Your task to perform on an android device: Go to privacy settings Image 0: 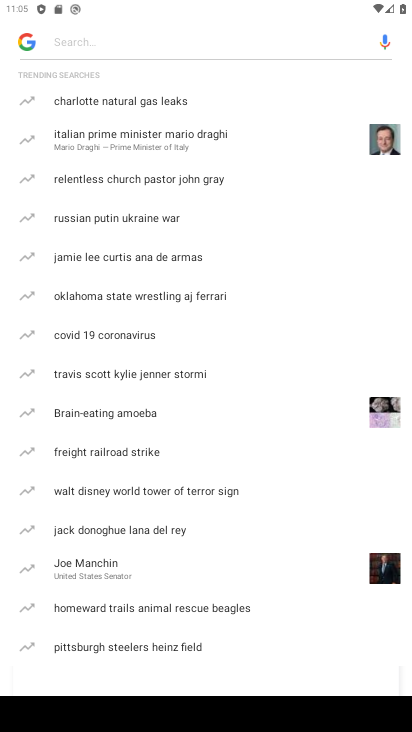
Step 0: press home button
Your task to perform on an android device: Go to privacy settings Image 1: 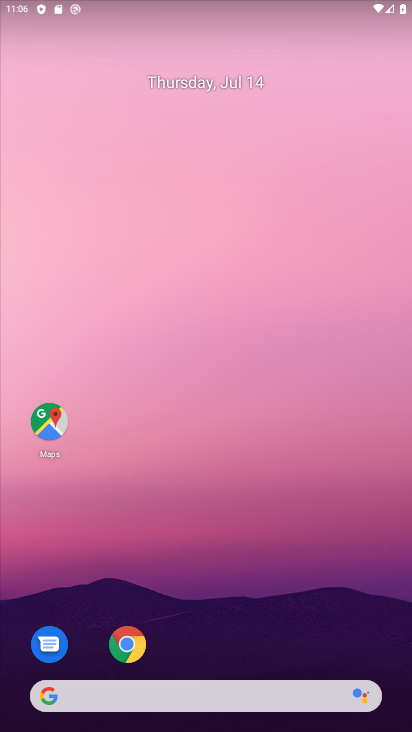
Step 1: drag from (196, 660) to (323, 37)
Your task to perform on an android device: Go to privacy settings Image 2: 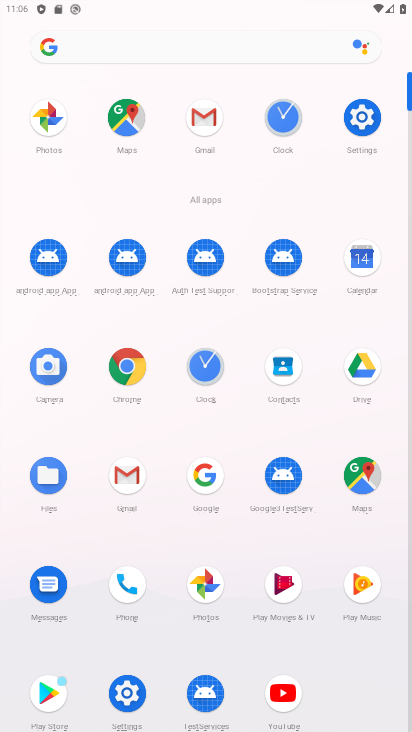
Step 2: click (132, 367)
Your task to perform on an android device: Go to privacy settings Image 3: 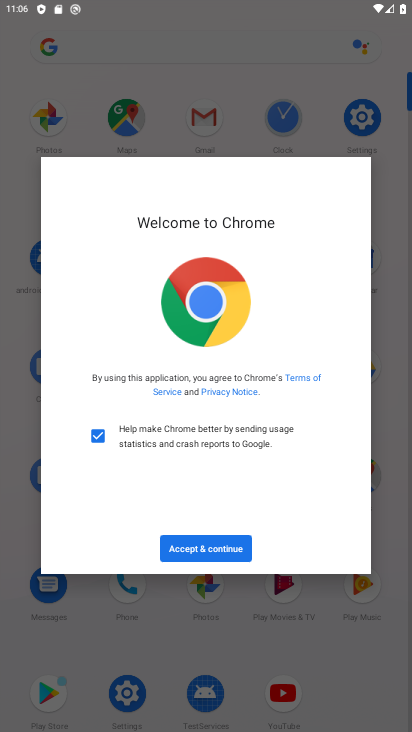
Step 3: click (206, 549)
Your task to perform on an android device: Go to privacy settings Image 4: 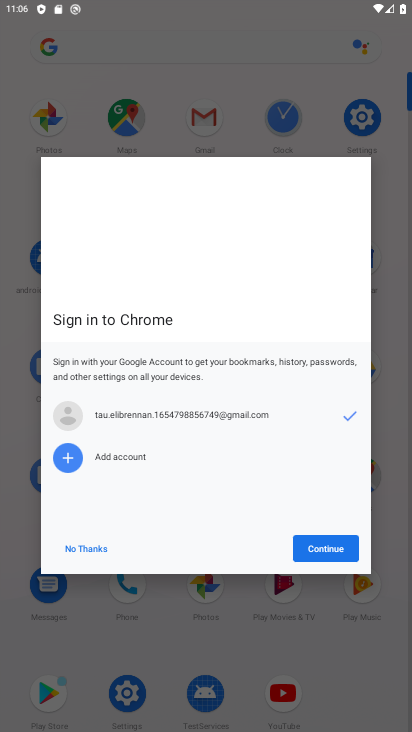
Step 4: click (329, 559)
Your task to perform on an android device: Go to privacy settings Image 5: 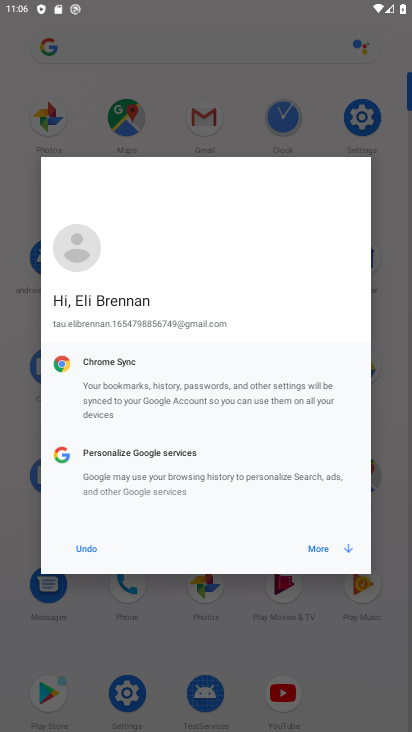
Step 5: click (328, 551)
Your task to perform on an android device: Go to privacy settings Image 6: 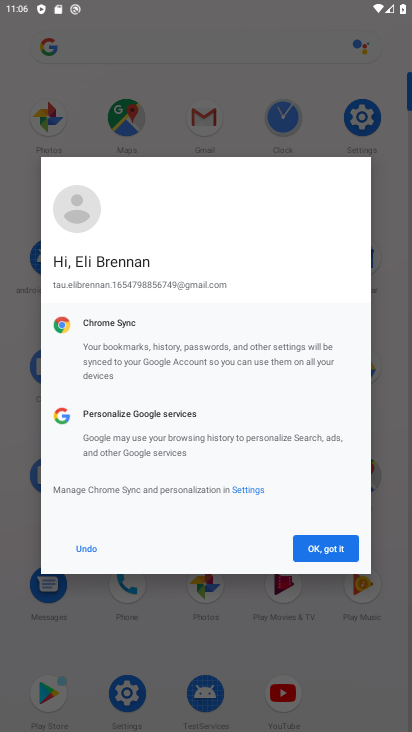
Step 6: click (328, 551)
Your task to perform on an android device: Go to privacy settings Image 7: 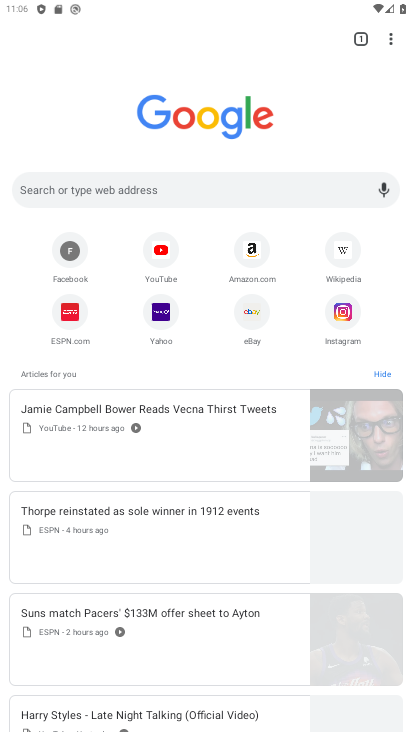
Step 7: drag from (394, 27) to (287, 321)
Your task to perform on an android device: Go to privacy settings Image 8: 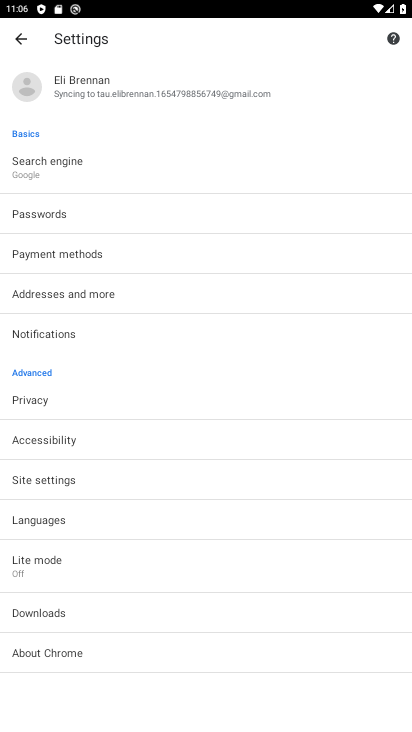
Step 8: click (99, 406)
Your task to perform on an android device: Go to privacy settings Image 9: 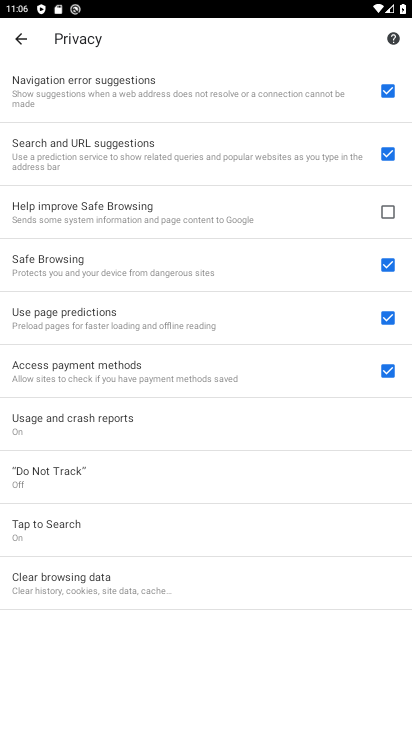
Step 9: task complete